Your task to perform on an android device: open app "The Home Depot" (install if not already installed) and go to login screen Image 0: 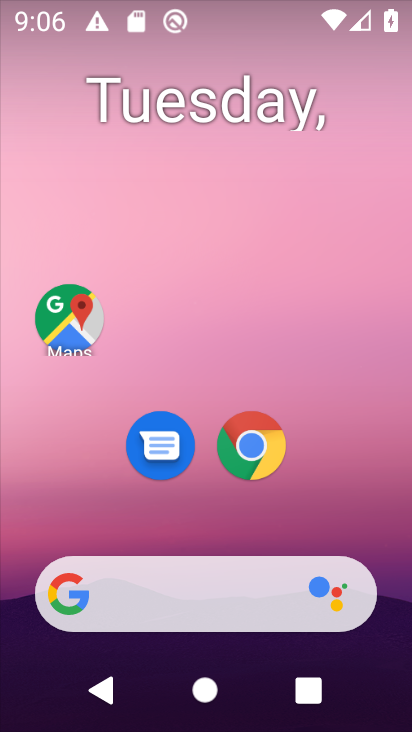
Step 0: drag from (211, 533) to (208, 148)
Your task to perform on an android device: open app "The Home Depot" (install if not already installed) and go to login screen Image 1: 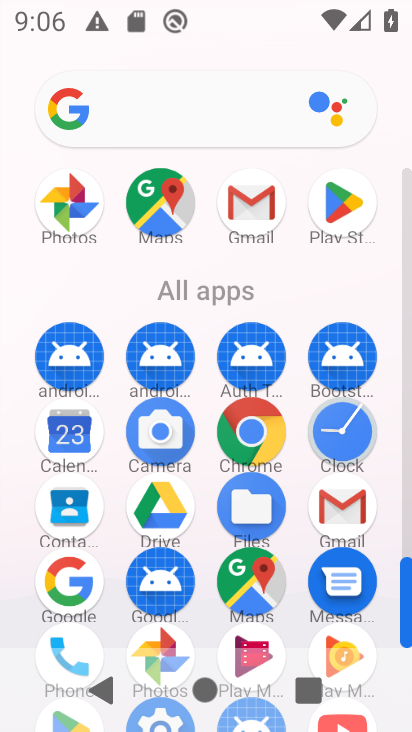
Step 1: click (336, 207)
Your task to perform on an android device: open app "The Home Depot" (install if not already installed) and go to login screen Image 2: 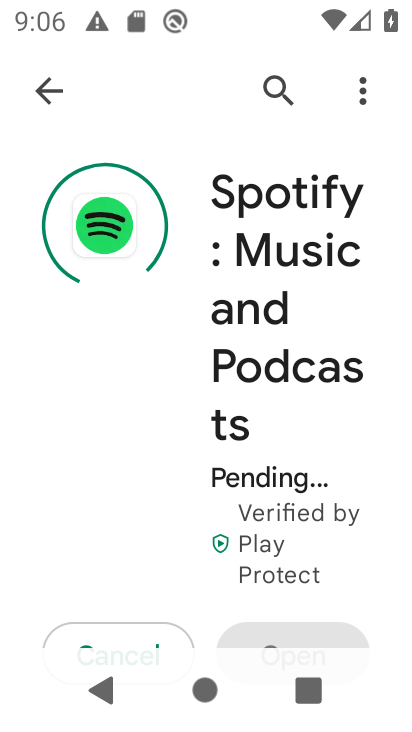
Step 2: click (44, 81)
Your task to perform on an android device: open app "The Home Depot" (install if not already installed) and go to login screen Image 3: 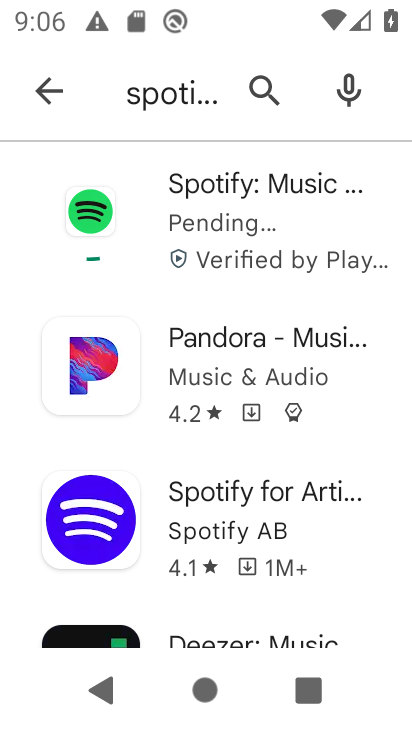
Step 3: click (44, 81)
Your task to perform on an android device: open app "The Home Depot" (install if not already installed) and go to login screen Image 4: 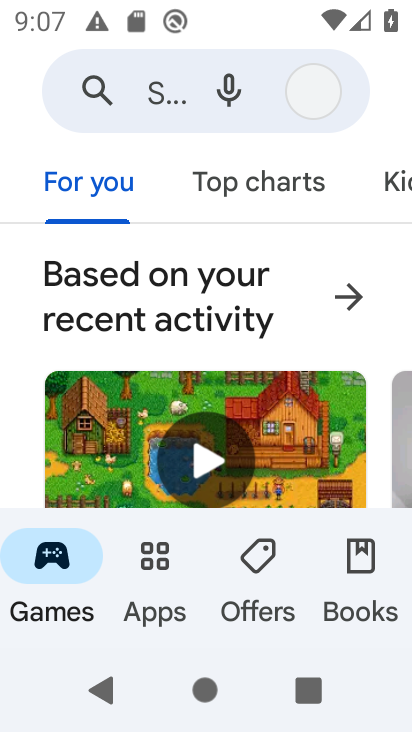
Step 4: click (149, 90)
Your task to perform on an android device: open app "The Home Depot" (install if not already installed) and go to login screen Image 5: 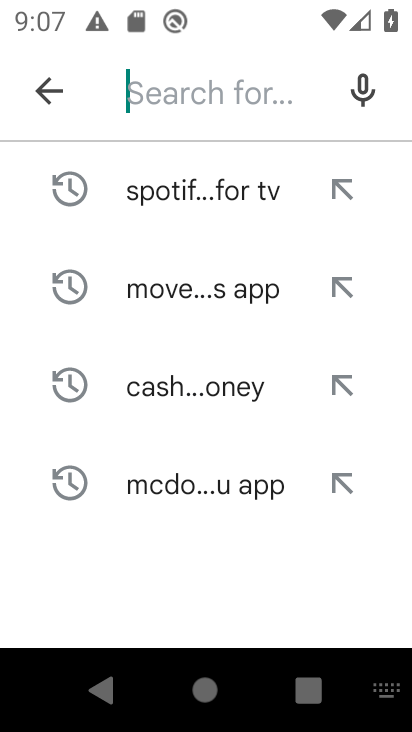
Step 5: type "The Home Depot "
Your task to perform on an android device: open app "The Home Depot" (install if not already installed) and go to login screen Image 6: 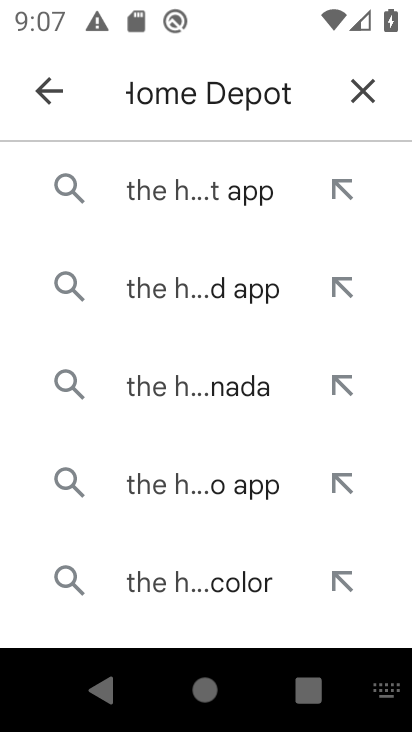
Step 6: click (186, 190)
Your task to perform on an android device: open app "The Home Depot" (install if not already installed) and go to login screen Image 7: 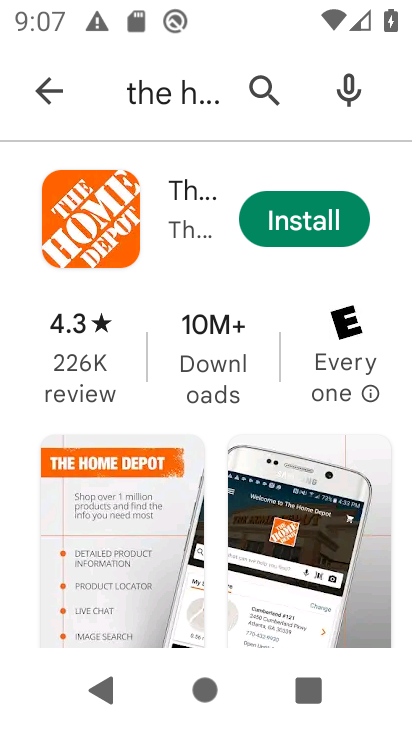
Step 7: click (299, 206)
Your task to perform on an android device: open app "The Home Depot" (install if not already installed) and go to login screen Image 8: 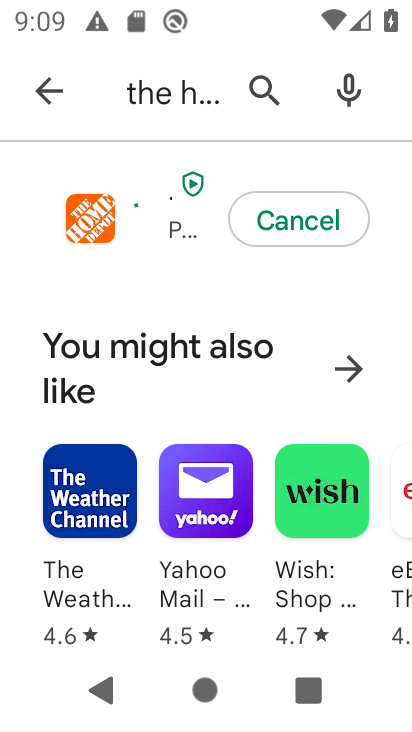
Step 8: task complete